Your task to perform on an android device: When is my next appointment? Image 0: 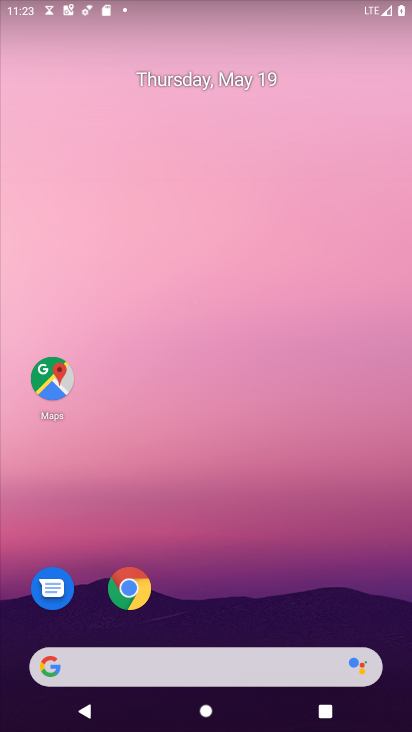
Step 0: drag from (273, 507) to (191, 59)
Your task to perform on an android device: When is my next appointment? Image 1: 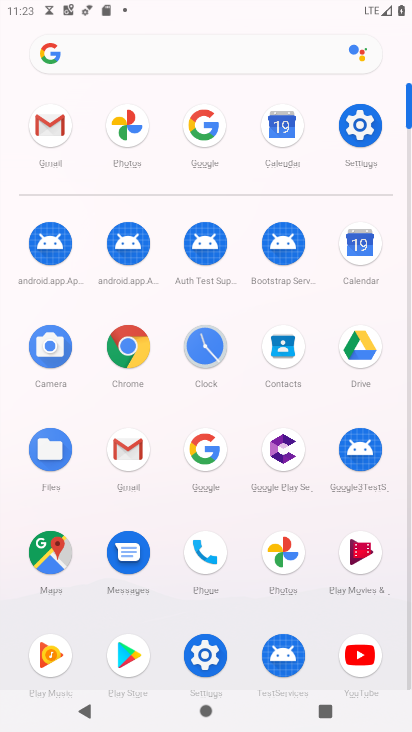
Step 1: click (366, 246)
Your task to perform on an android device: When is my next appointment? Image 2: 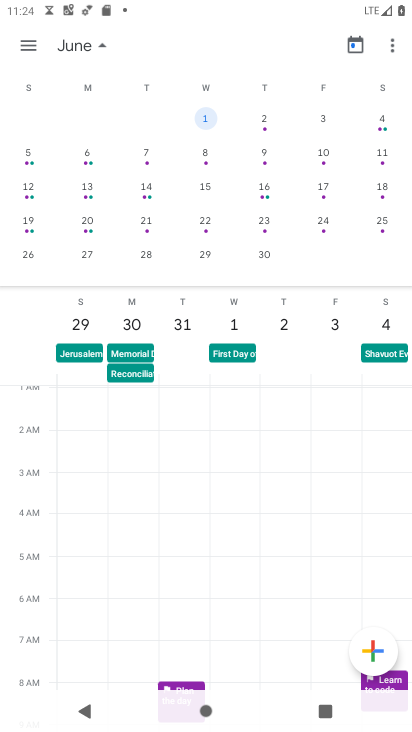
Step 2: drag from (63, 145) to (404, 175)
Your task to perform on an android device: When is my next appointment? Image 3: 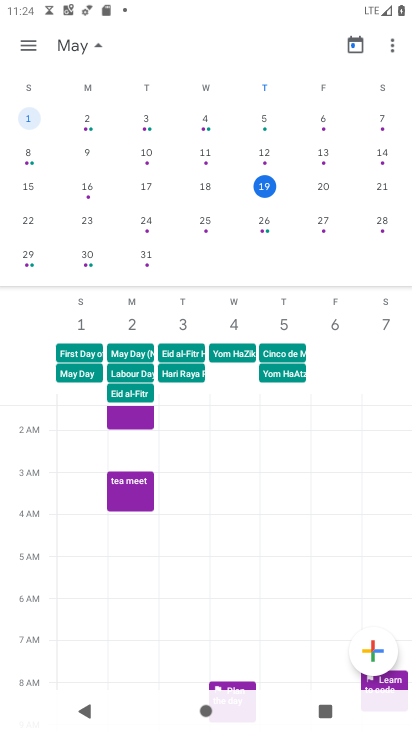
Step 3: click (30, 183)
Your task to perform on an android device: When is my next appointment? Image 4: 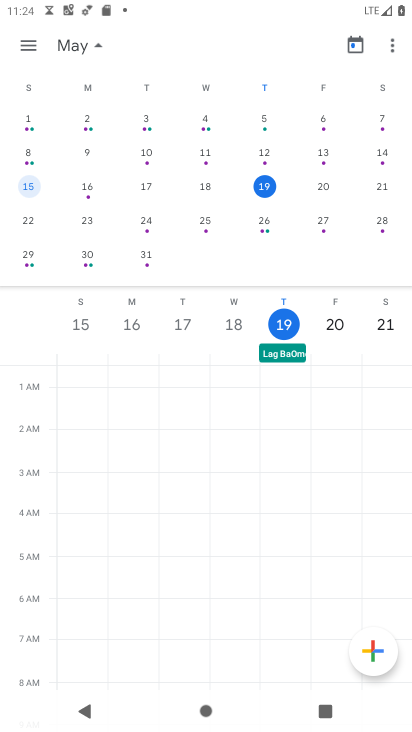
Step 4: task complete